Your task to perform on an android device: check the backup settings in the google photos Image 0: 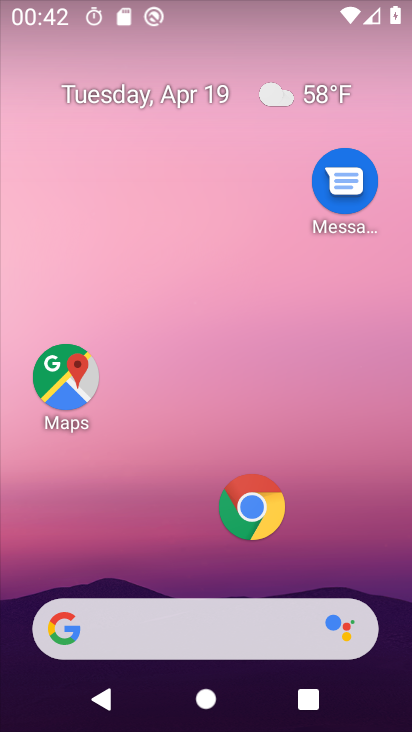
Step 0: drag from (178, 534) to (250, 41)
Your task to perform on an android device: check the backup settings in the google photos Image 1: 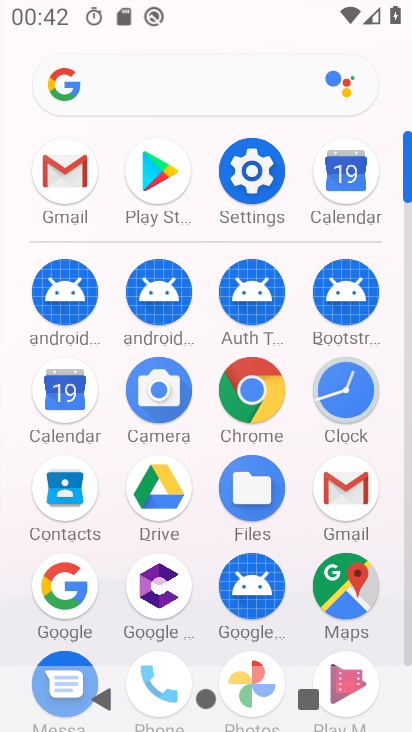
Step 1: drag from (201, 575) to (200, 254)
Your task to perform on an android device: check the backup settings in the google photos Image 2: 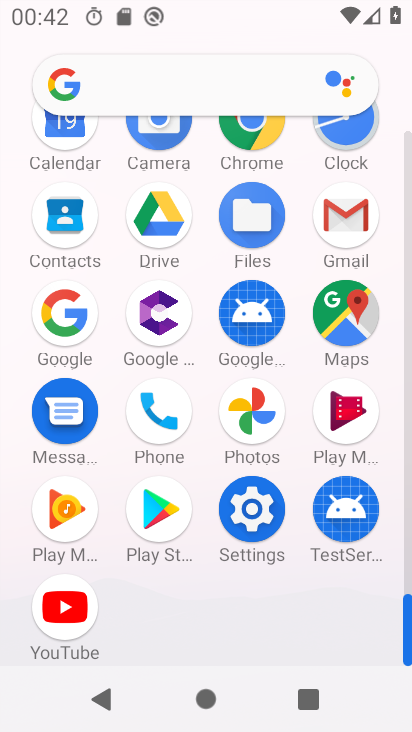
Step 2: click (242, 416)
Your task to perform on an android device: check the backup settings in the google photos Image 3: 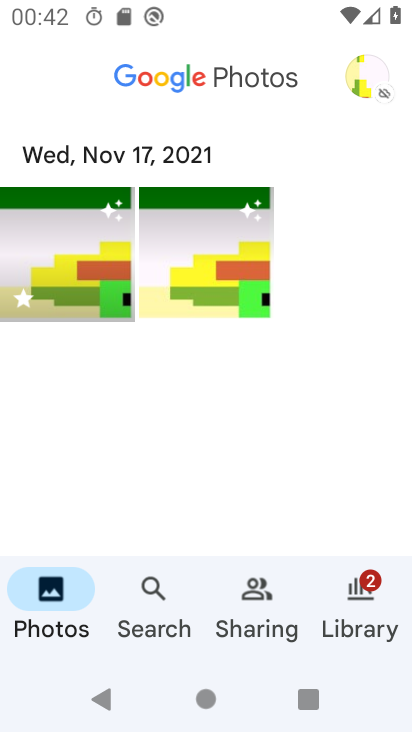
Step 3: click (366, 75)
Your task to perform on an android device: check the backup settings in the google photos Image 4: 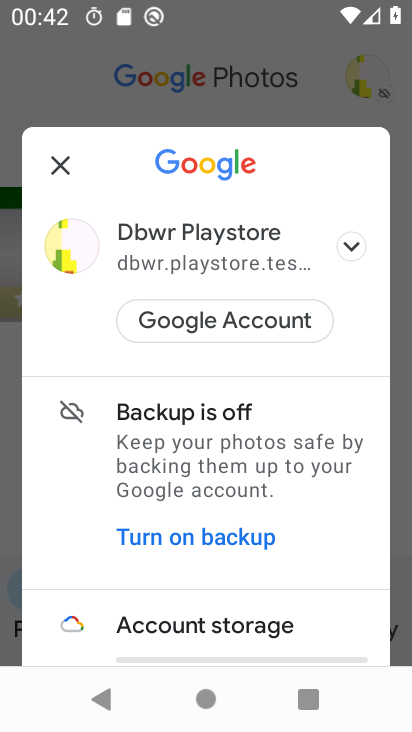
Step 4: drag from (194, 538) to (202, 479)
Your task to perform on an android device: check the backup settings in the google photos Image 5: 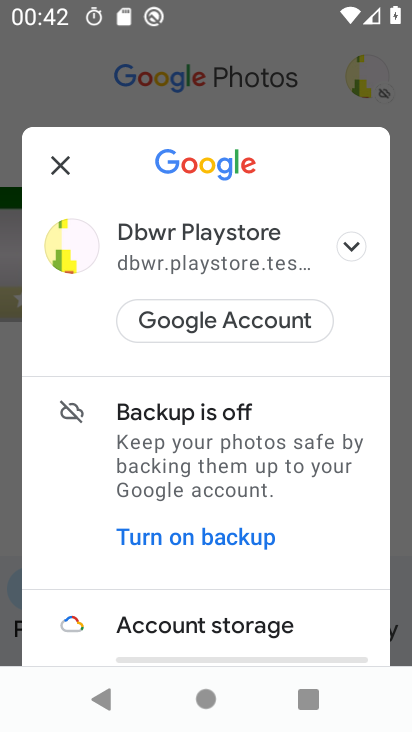
Step 5: click (164, 390)
Your task to perform on an android device: check the backup settings in the google photos Image 6: 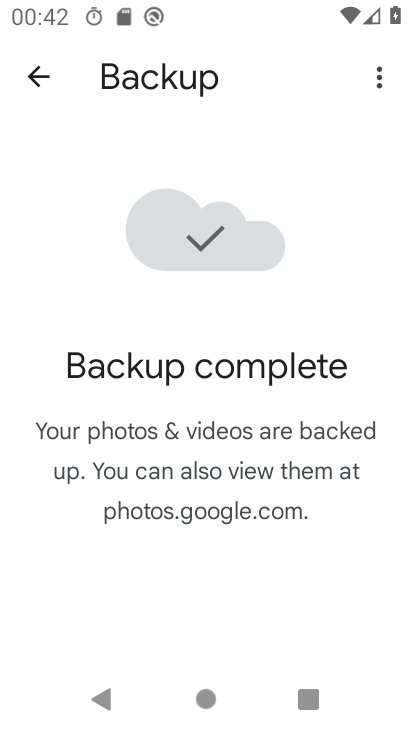
Step 6: click (35, 63)
Your task to perform on an android device: check the backup settings in the google photos Image 7: 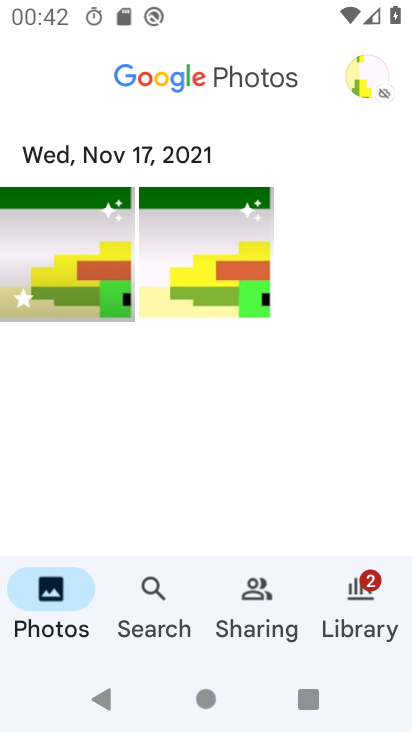
Step 7: click (370, 85)
Your task to perform on an android device: check the backup settings in the google photos Image 8: 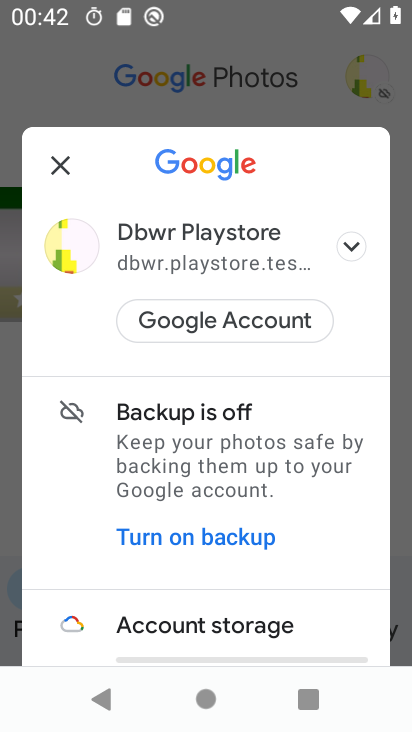
Step 8: drag from (207, 502) to (282, 8)
Your task to perform on an android device: check the backup settings in the google photos Image 9: 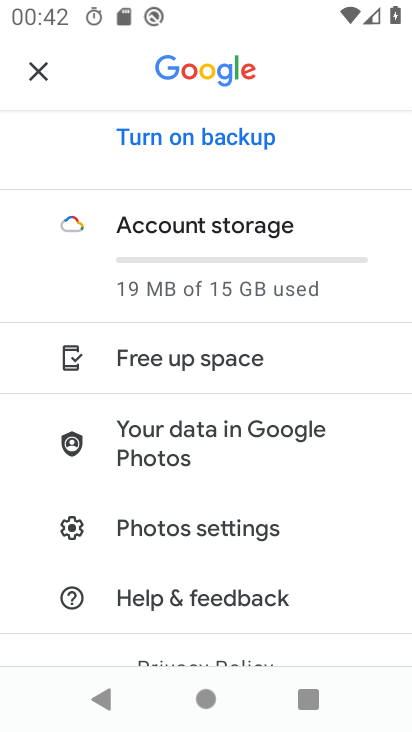
Step 9: drag from (173, 524) to (239, 114)
Your task to perform on an android device: check the backup settings in the google photos Image 10: 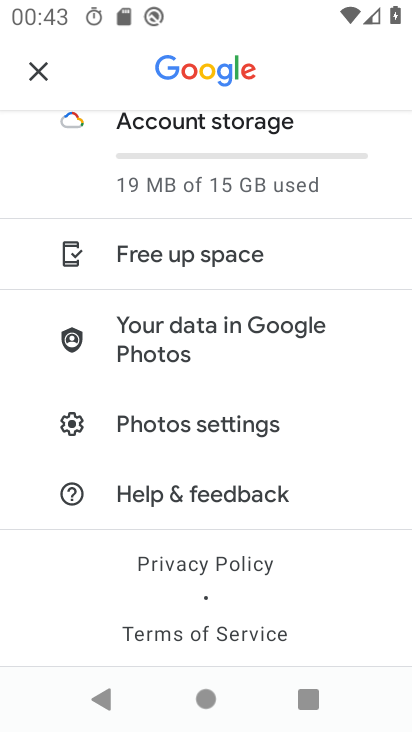
Step 10: click (216, 427)
Your task to perform on an android device: check the backup settings in the google photos Image 11: 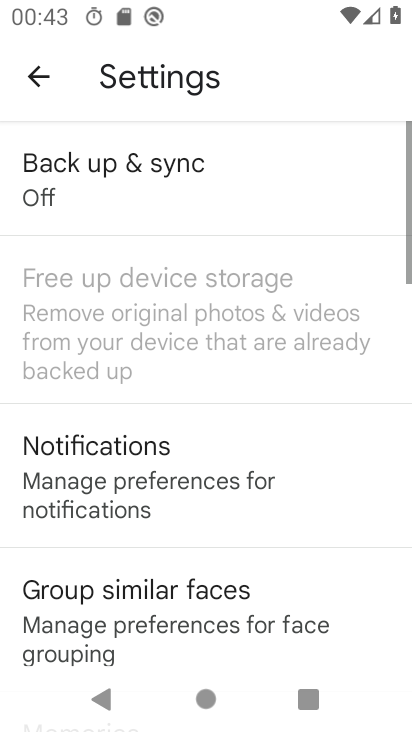
Step 11: click (135, 199)
Your task to perform on an android device: check the backup settings in the google photos Image 12: 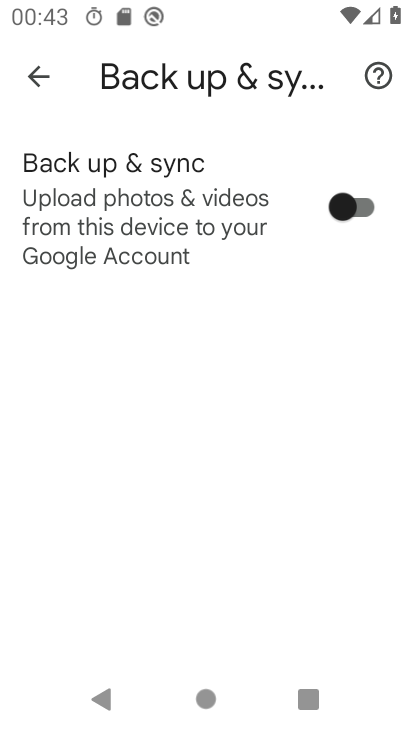
Step 12: task complete